Your task to perform on an android device: Go to network settings Image 0: 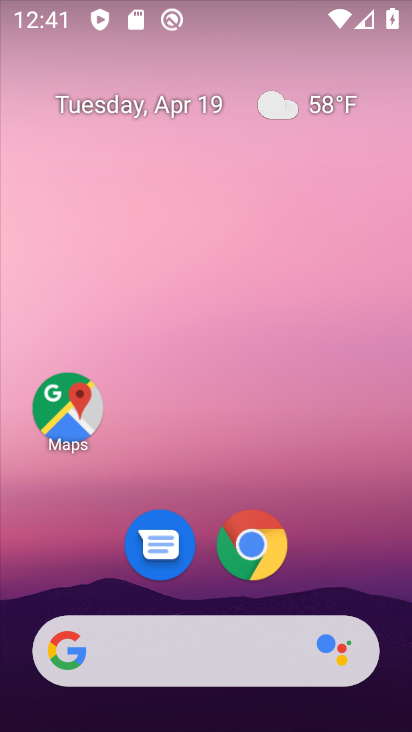
Step 0: drag from (238, 460) to (317, 27)
Your task to perform on an android device: Go to network settings Image 1: 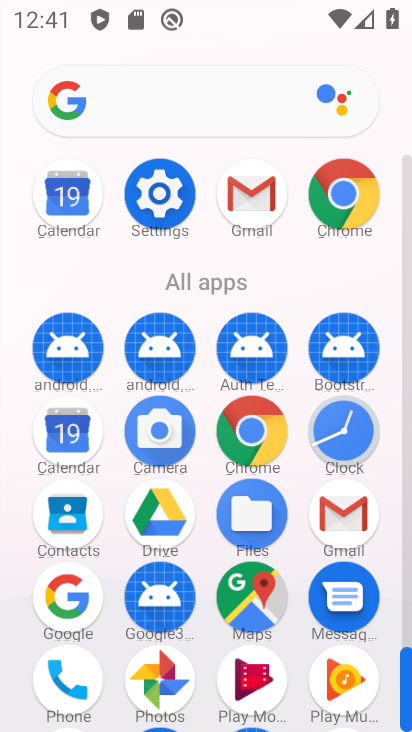
Step 1: click (152, 163)
Your task to perform on an android device: Go to network settings Image 2: 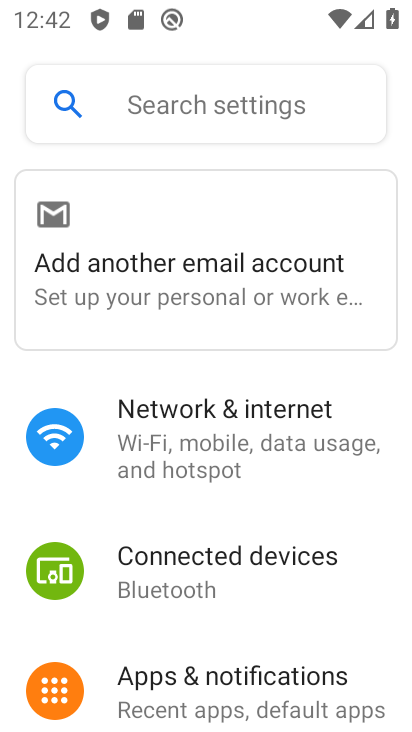
Step 2: click (252, 427)
Your task to perform on an android device: Go to network settings Image 3: 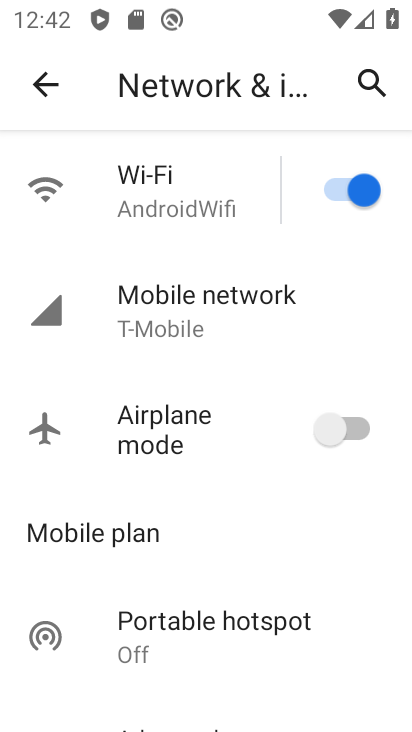
Step 3: task complete